Your task to perform on an android device: find snoozed emails in the gmail app Image 0: 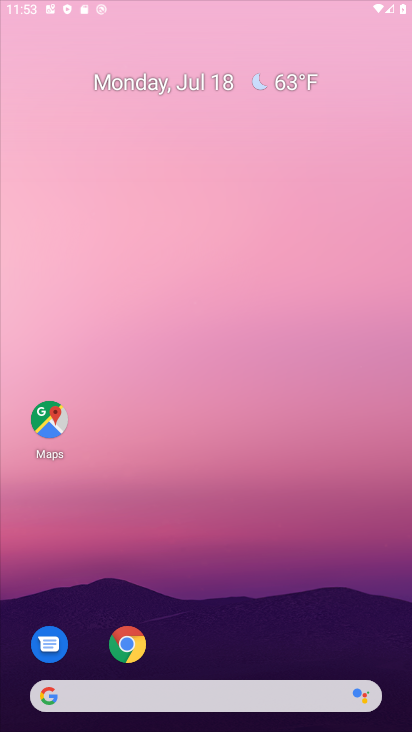
Step 0: drag from (217, 722) to (217, 294)
Your task to perform on an android device: find snoozed emails in the gmail app Image 1: 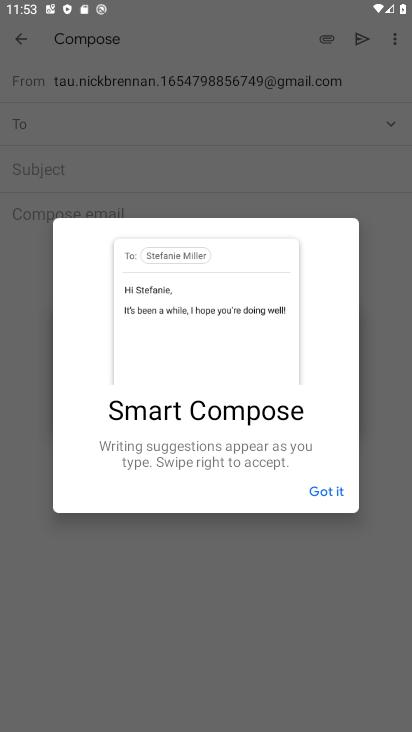
Step 1: press home button
Your task to perform on an android device: find snoozed emails in the gmail app Image 2: 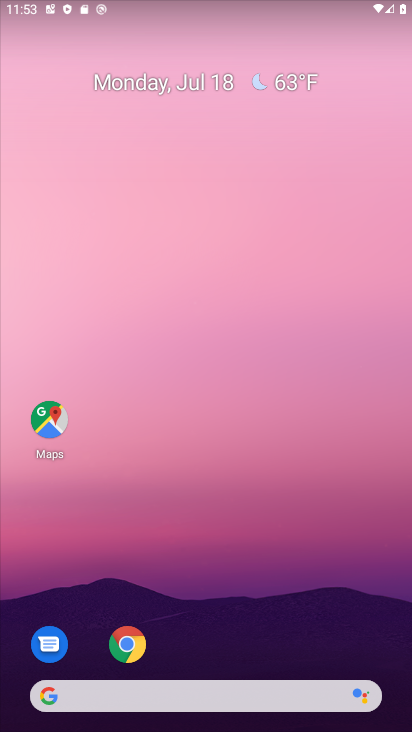
Step 2: drag from (215, 685) to (198, 257)
Your task to perform on an android device: find snoozed emails in the gmail app Image 3: 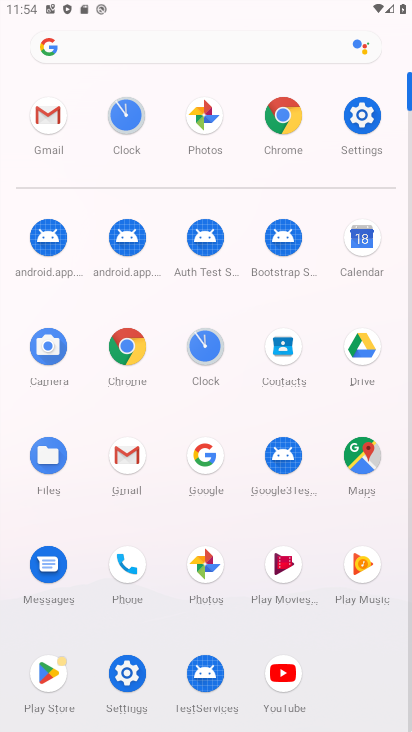
Step 3: click (128, 462)
Your task to perform on an android device: find snoozed emails in the gmail app Image 4: 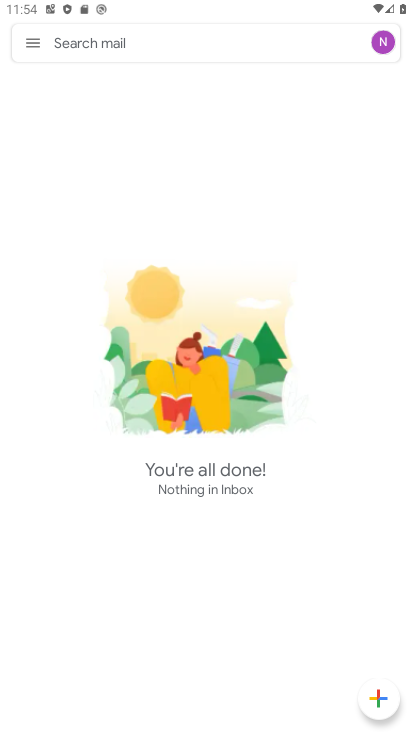
Step 4: click (29, 44)
Your task to perform on an android device: find snoozed emails in the gmail app Image 5: 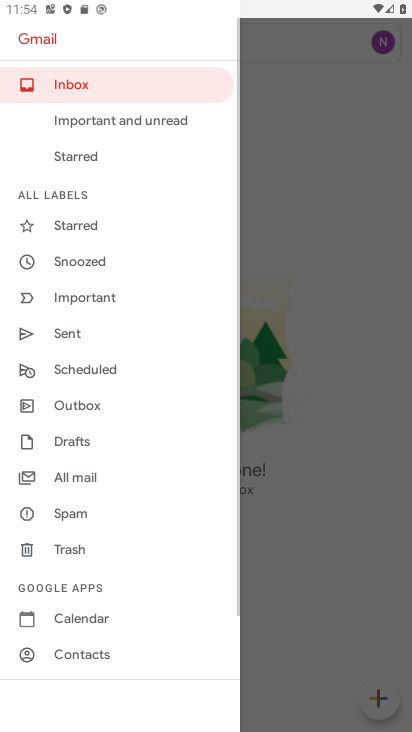
Step 5: click (89, 256)
Your task to perform on an android device: find snoozed emails in the gmail app Image 6: 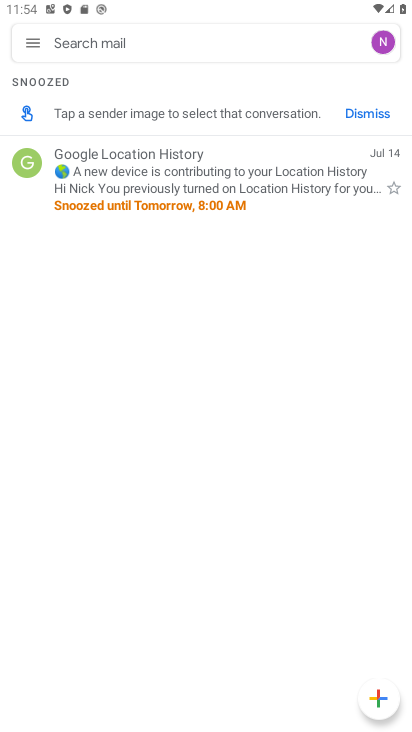
Step 6: task complete